Your task to perform on an android device: check google app version Image 0: 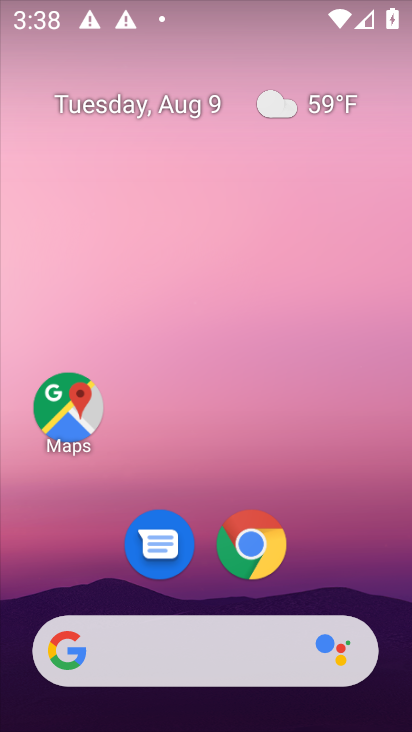
Step 0: drag from (212, 611) to (212, 153)
Your task to perform on an android device: check google app version Image 1: 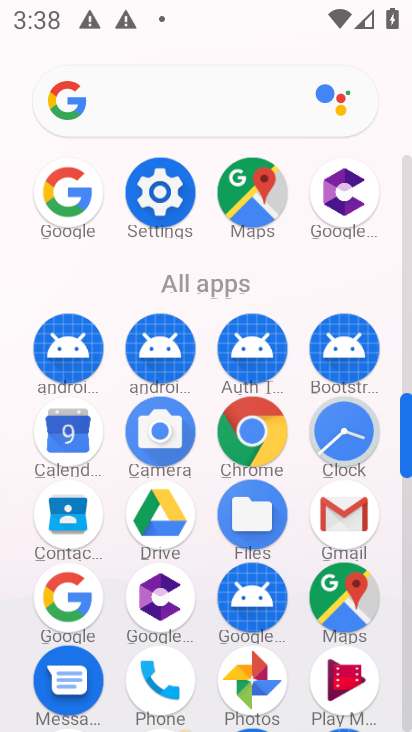
Step 1: click (68, 198)
Your task to perform on an android device: check google app version Image 2: 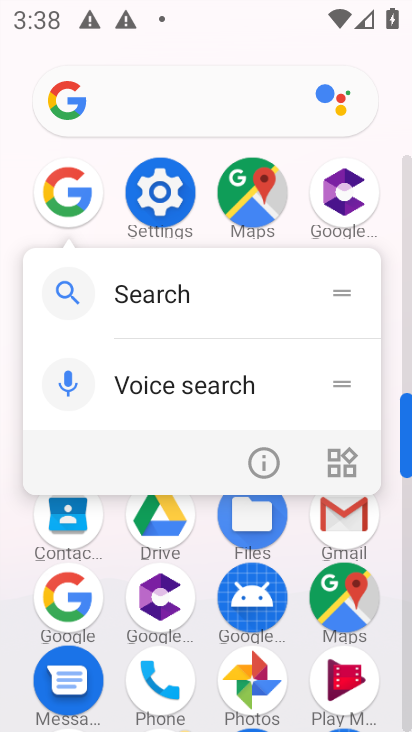
Step 2: click (274, 463)
Your task to perform on an android device: check google app version Image 3: 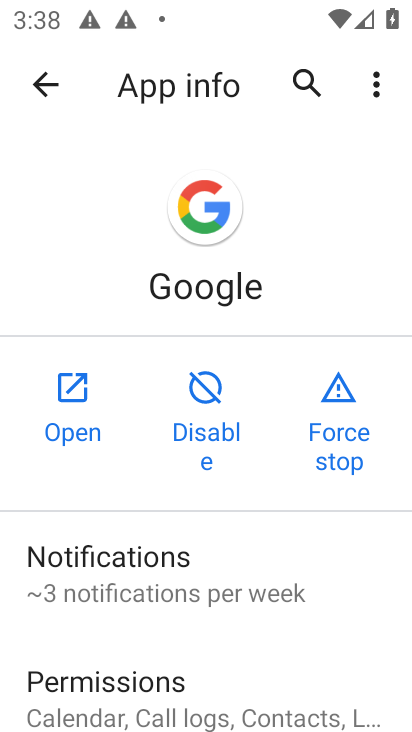
Step 3: drag from (121, 476) to (114, 207)
Your task to perform on an android device: check google app version Image 4: 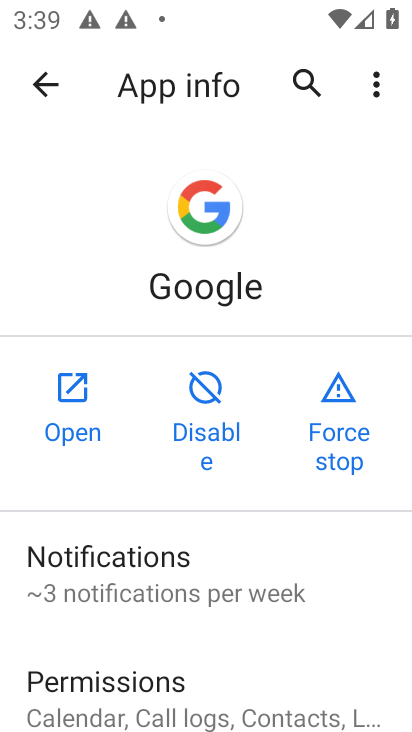
Step 4: drag from (83, 719) to (129, 328)
Your task to perform on an android device: check google app version Image 5: 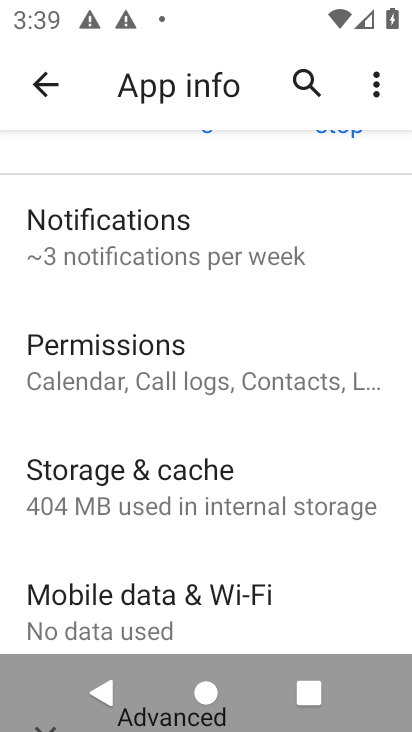
Step 5: drag from (163, 592) to (179, 219)
Your task to perform on an android device: check google app version Image 6: 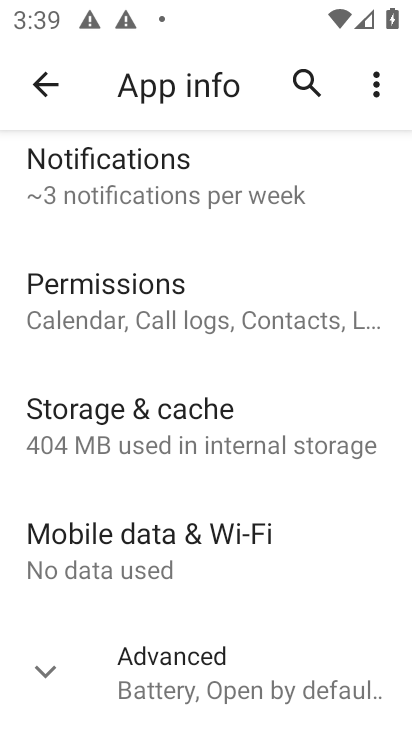
Step 6: click (206, 671)
Your task to perform on an android device: check google app version Image 7: 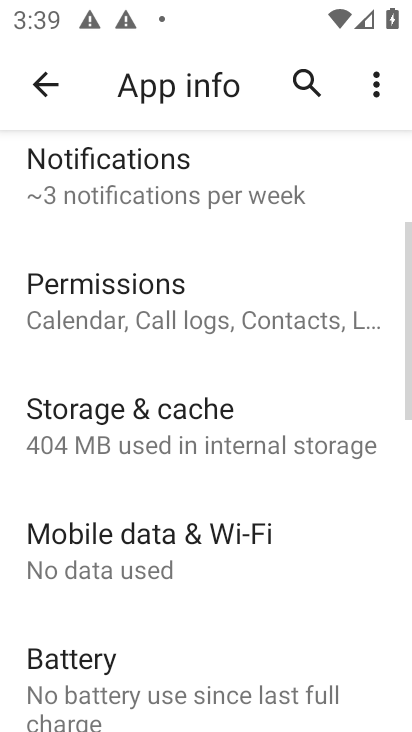
Step 7: task complete